Your task to perform on an android device: Go to eBay Image 0: 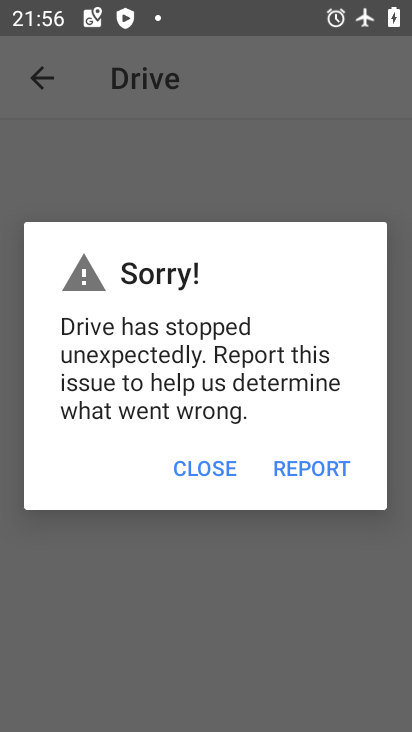
Step 0: press home button
Your task to perform on an android device: Go to eBay Image 1: 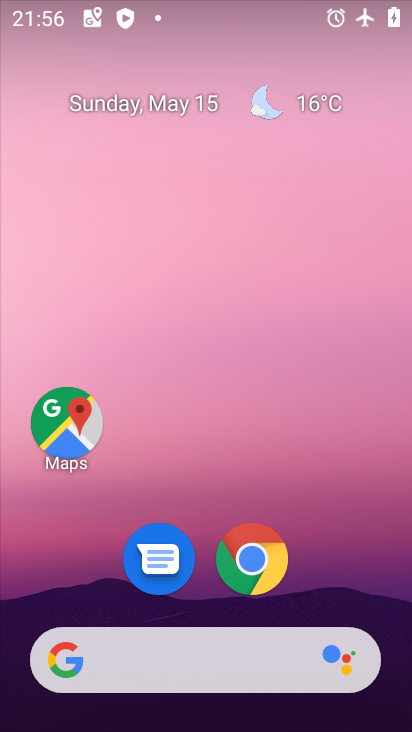
Step 1: click (256, 552)
Your task to perform on an android device: Go to eBay Image 2: 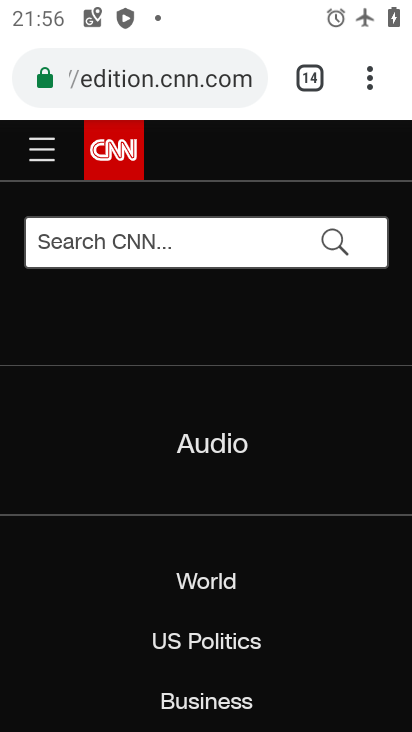
Step 2: click (367, 75)
Your task to perform on an android device: Go to eBay Image 3: 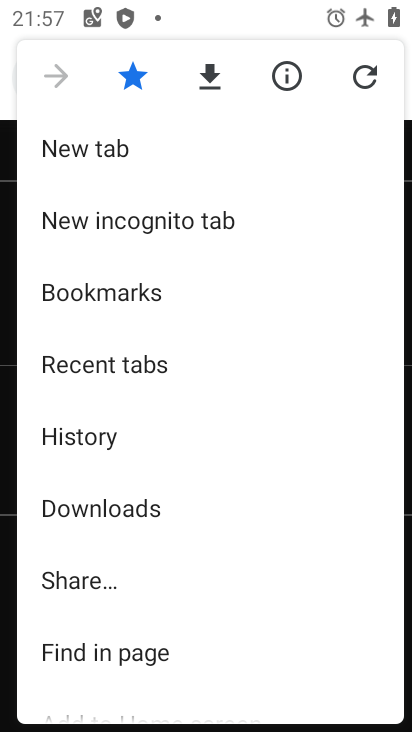
Step 3: click (93, 143)
Your task to perform on an android device: Go to eBay Image 4: 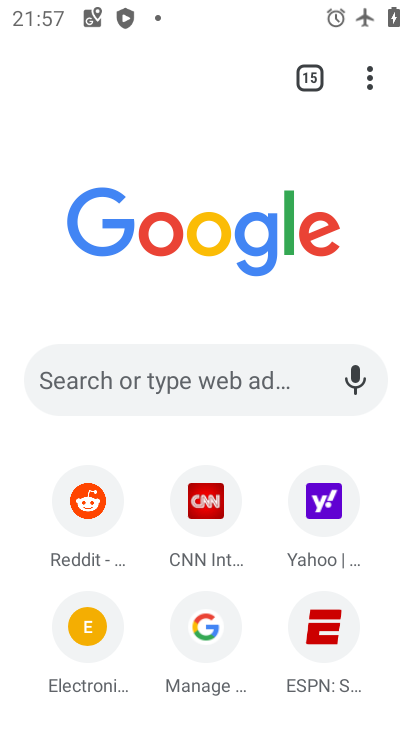
Step 4: click (170, 355)
Your task to perform on an android device: Go to eBay Image 5: 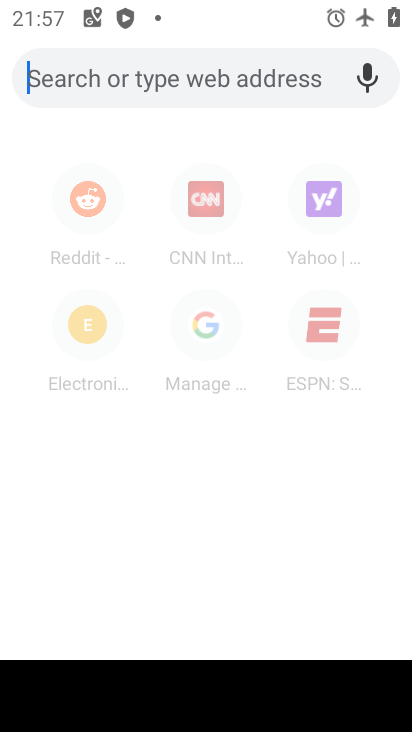
Step 5: type "ebay"
Your task to perform on an android device: Go to eBay Image 6: 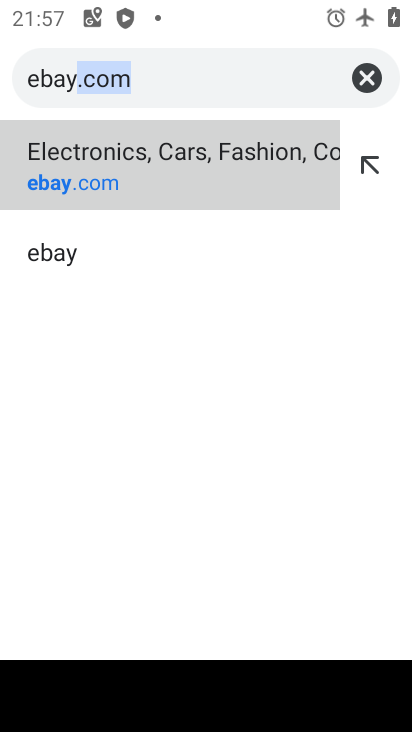
Step 6: click (119, 160)
Your task to perform on an android device: Go to eBay Image 7: 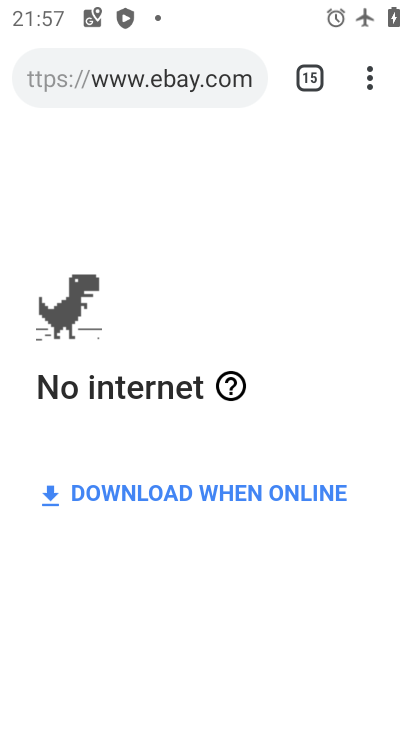
Step 7: task complete